Your task to perform on an android device: open app "Etsy: Buy & Sell Unique Items" Image 0: 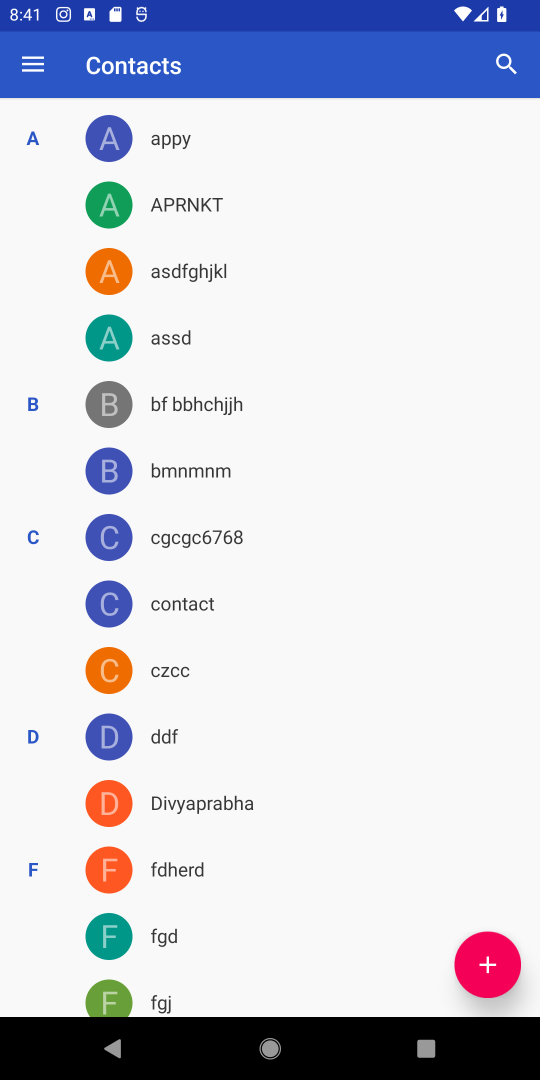
Step 0: press home button
Your task to perform on an android device: open app "Etsy: Buy & Sell Unique Items" Image 1: 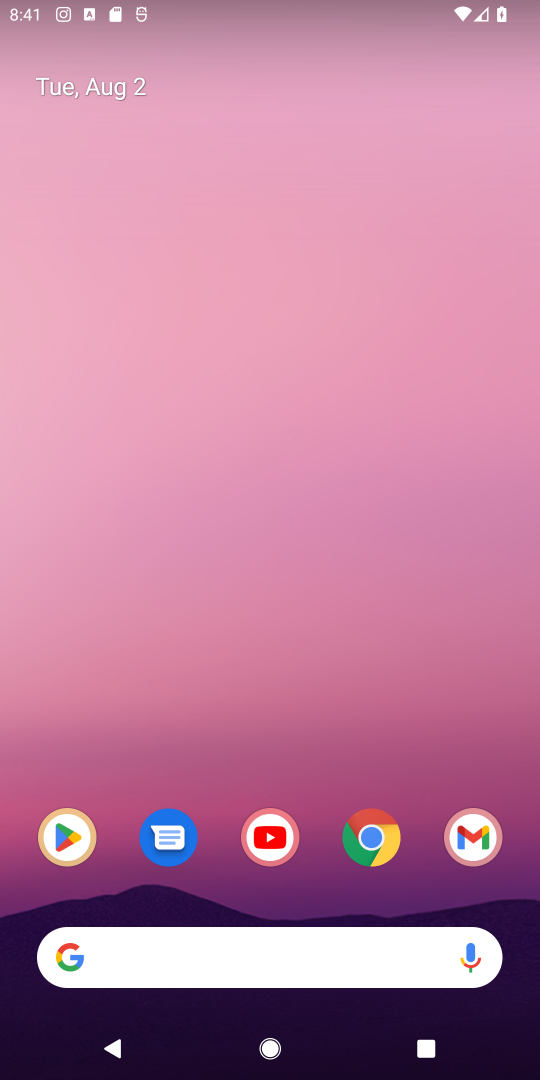
Step 1: click (64, 847)
Your task to perform on an android device: open app "Etsy: Buy & Sell Unique Items" Image 2: 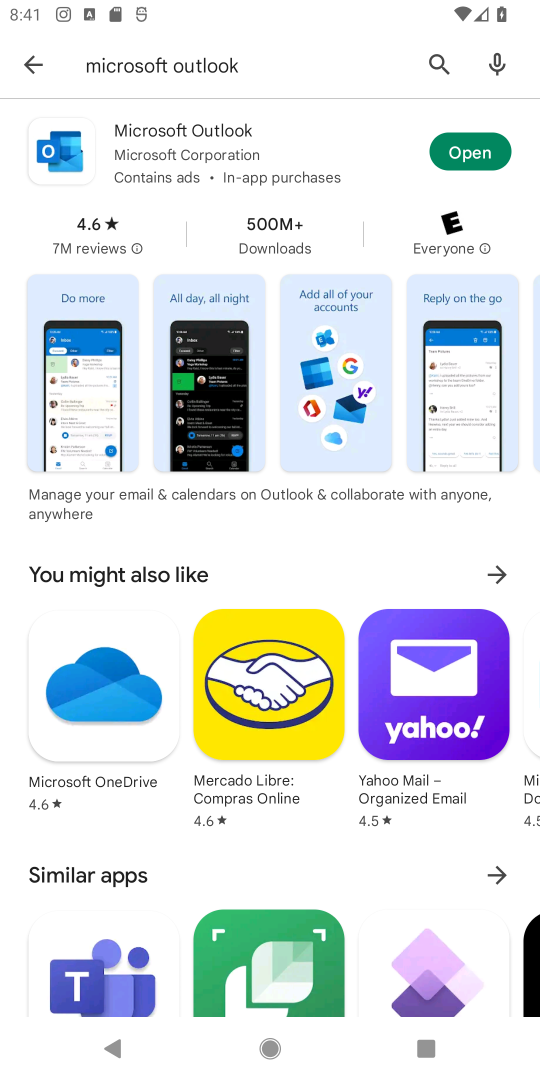
Step 2: click (424, 60)
Your task to perform on an android device: open app "Etsy: Buy & Sell Unique Items" Image 3: 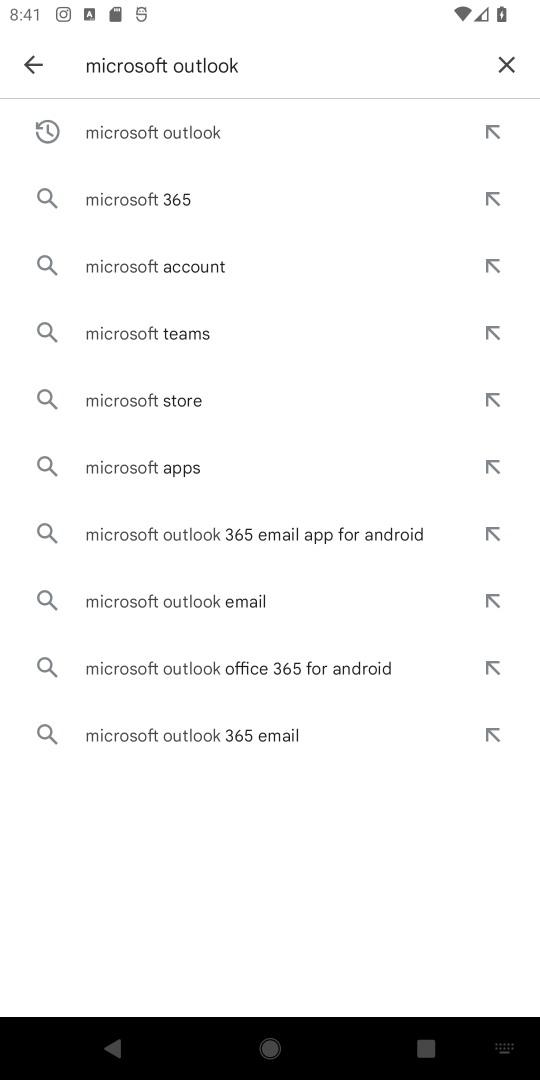
Step 3: click (516, 73)
Your task to perform on an android device: open app "Etsy: Buy & Sell Unique Items" Image 4: 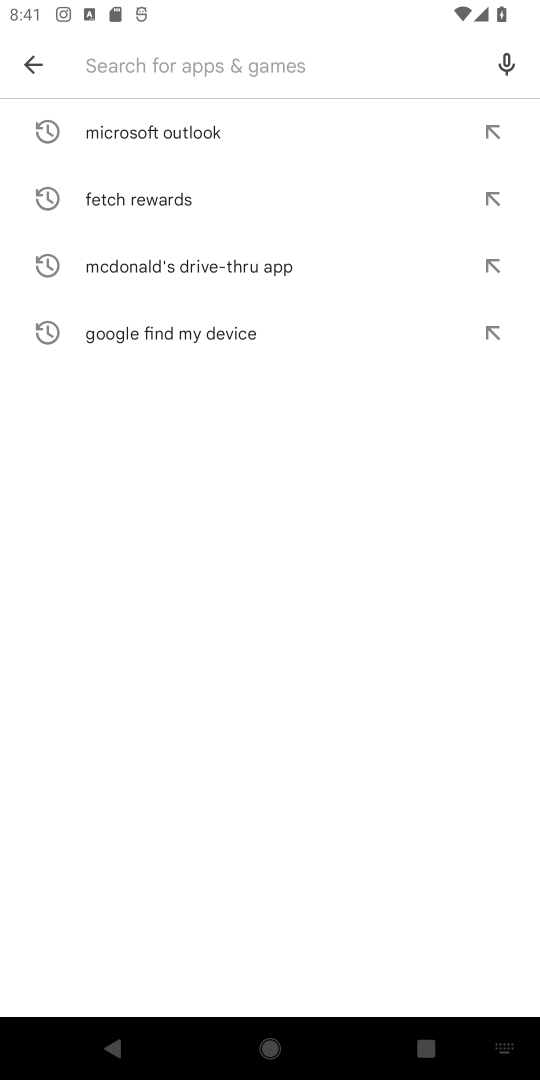
Step 4: type "Etsy: Buy & Sell Unique Items"
Your task to perform on an android device: open app "Etsy: Buy & Sell Unique Items" Image 5: 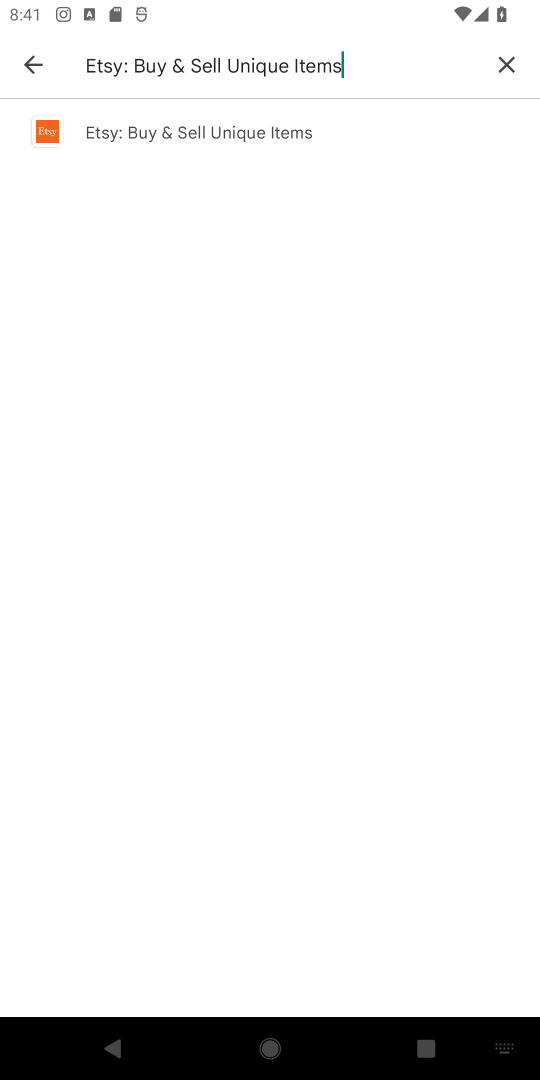
Step 5: click (223, 133)
Your task to perform on an android device: open app "Etsy: Buy & Sell Unique Items" Image 6: 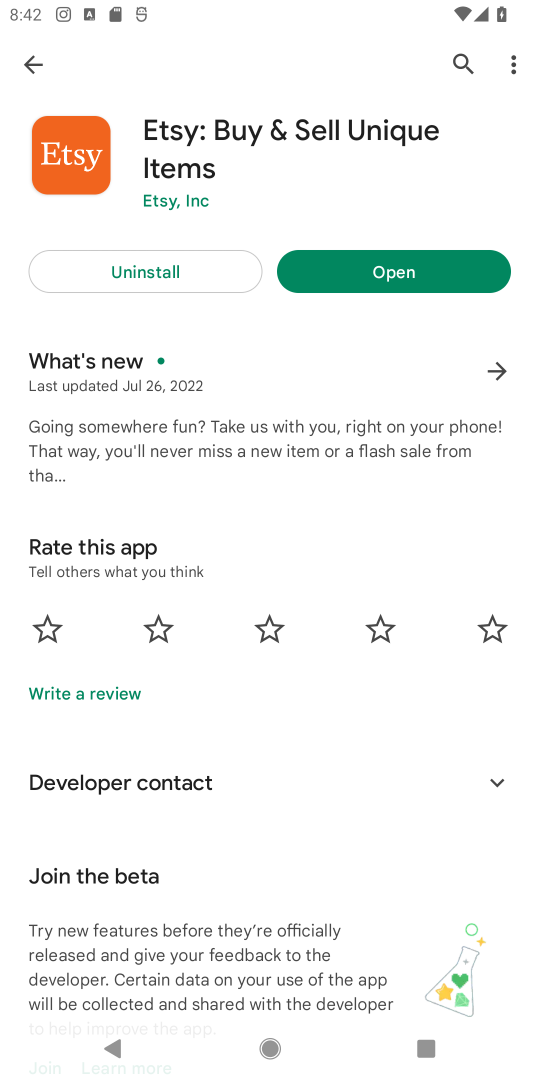
Step 6: click (407, 276)
Your task to perform on an android device: open app "Etsy: Buy & Sell Unique Items" Image 7: 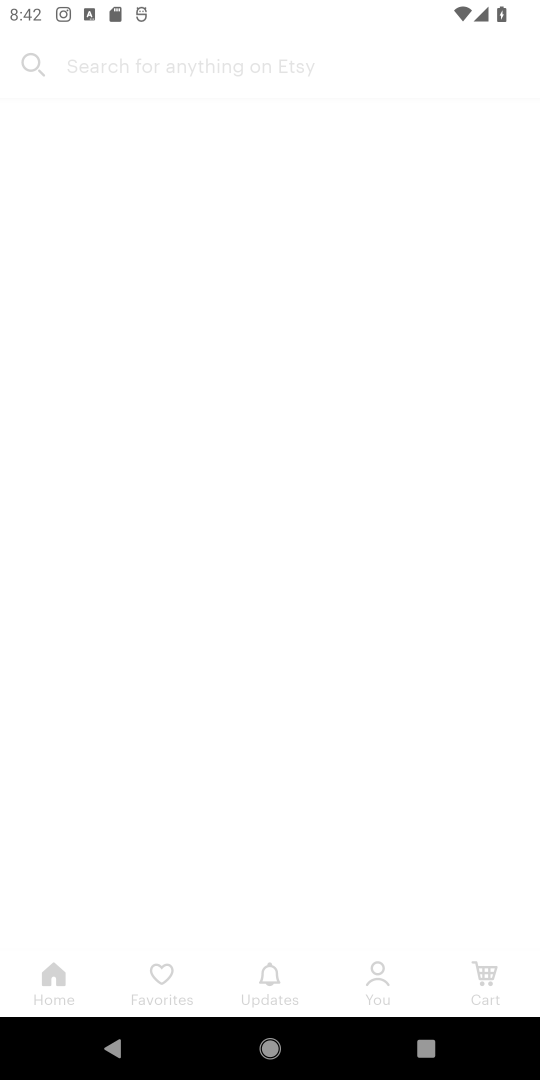
Step 7: task complete